Your task to perform on an android device: check google app version Image 0: 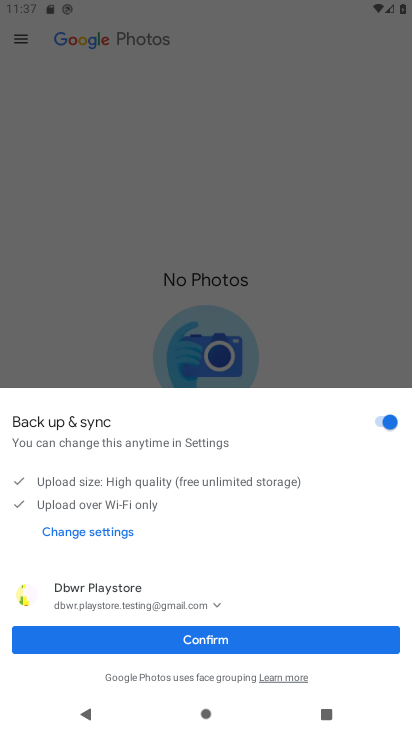
Step 0: press home button
Your task to perform on an android device: check google app version Image 1: 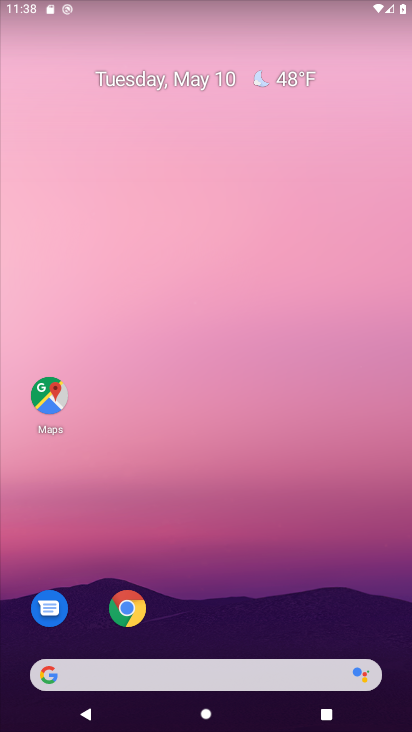
Step 1: drag from (185, 577) to (159, 222)
Your task to perform on an android device: check google app version Image 2: 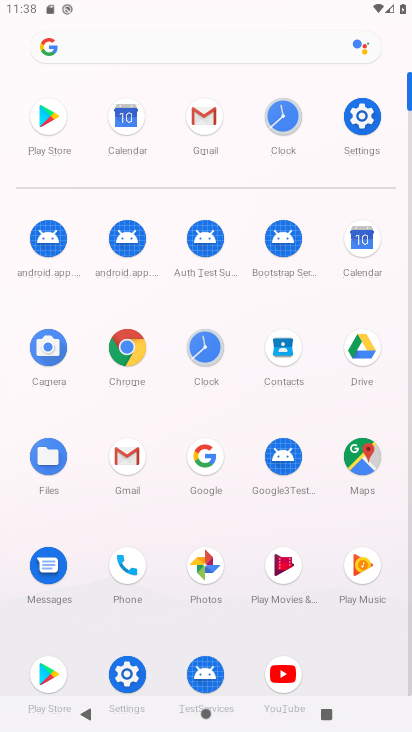
Step 2: click (209, 465)
Your task to perform on an android device: check google app version Image 3: 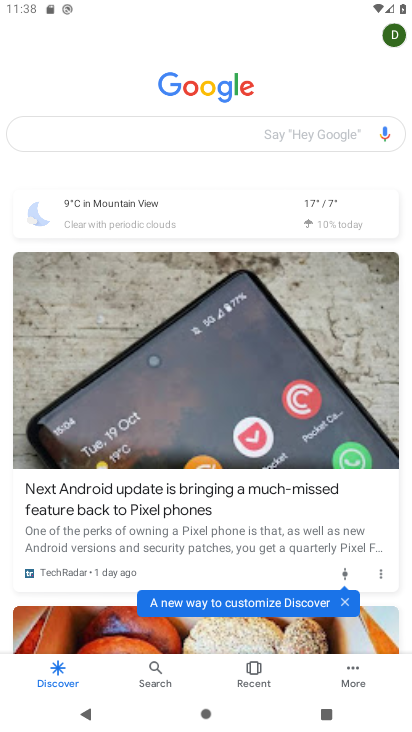
Step 3: click (350, 673)
Your task to perform on an android device: check google app version Image 4: 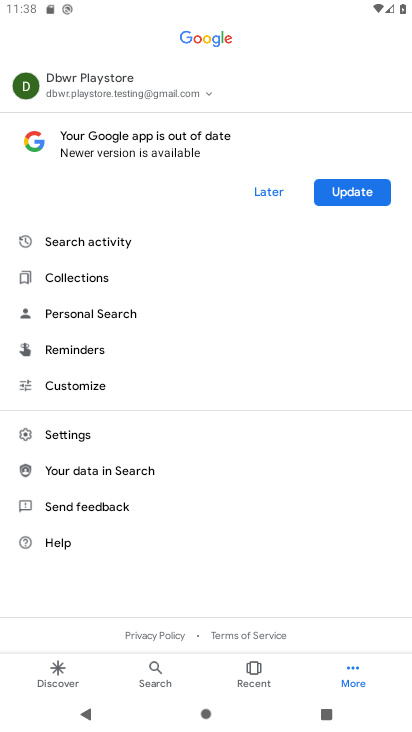
Step 4: click (84, 438)
Your task to perform on an android device: check google app version Image 5: 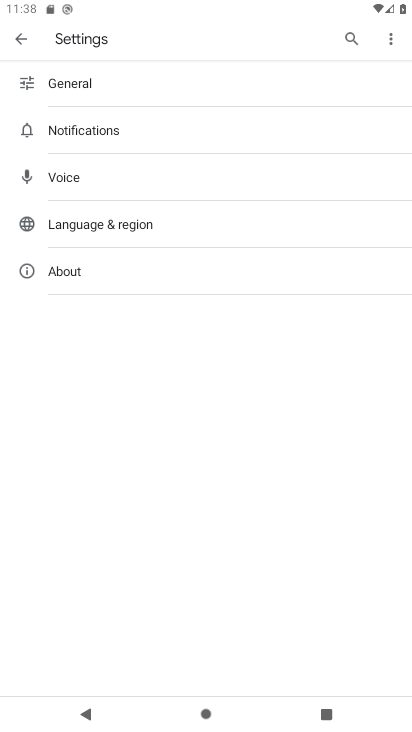
Step 5: click (69, 268)
Your task to perform on an android device: check google app version Image 6: 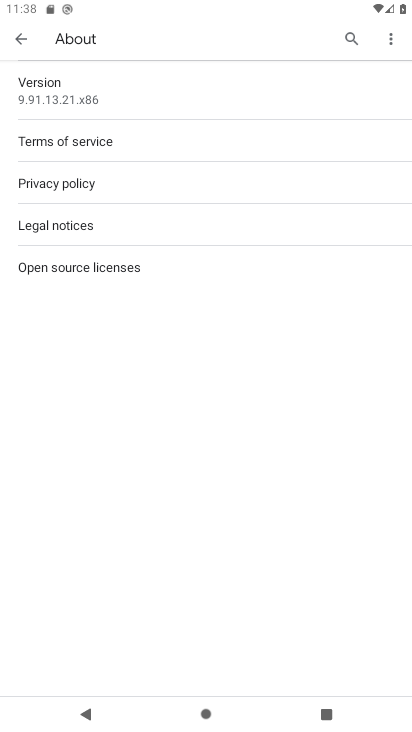
Step 6: task complete